Your task to perform on an android device: Go to ESPN.com Image 0: 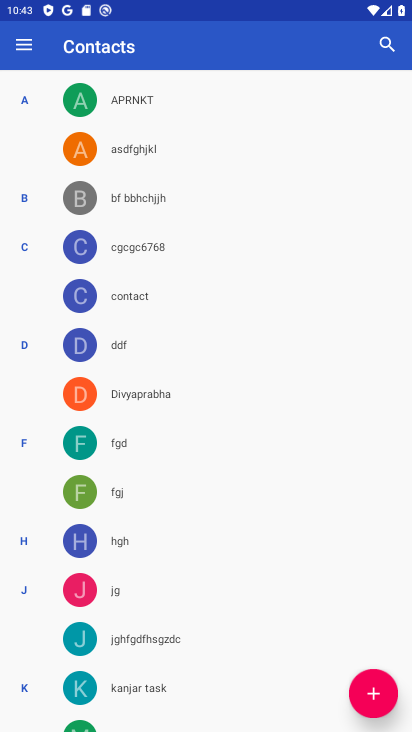
Step 0: press home button
Your task to perform on an android device: Go to ESPN.com Image 1: 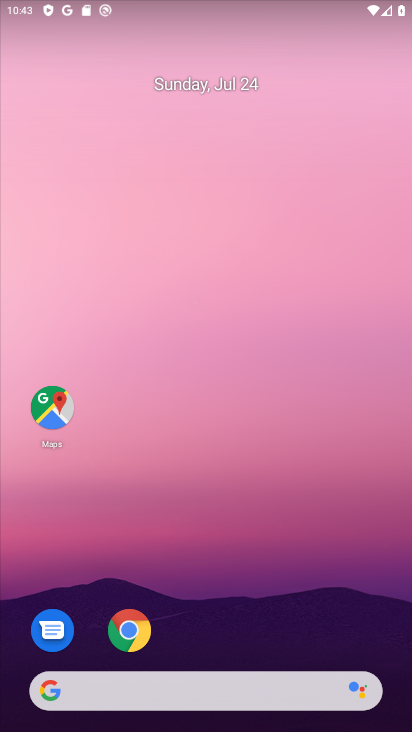
Step 1: press home button
Your task to perform on an android device: Go to ESPN.com Image 2: 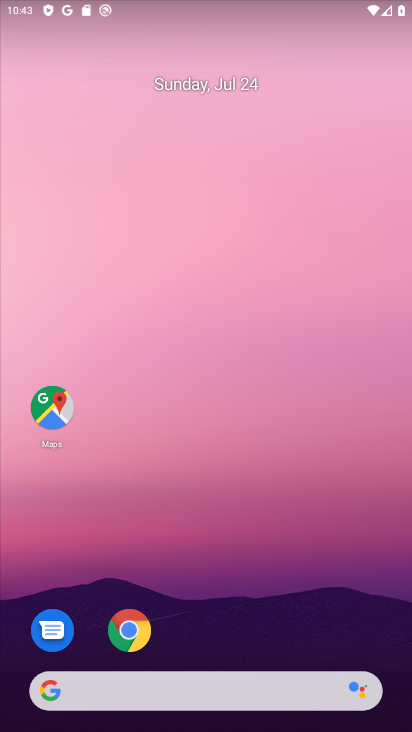
Step 2: click (45, 682)
Your task to perform on an android device: Go to ESPN.com Image 3: 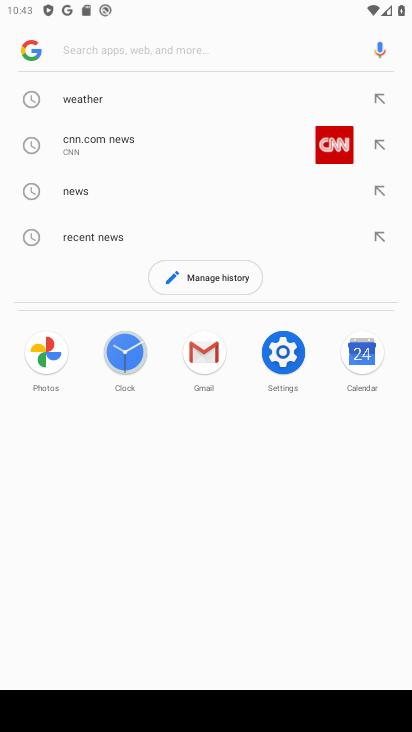
Step 3: type "ESPN.com"
Your task to perform on an android device: Go to ESPN.com Image 4: 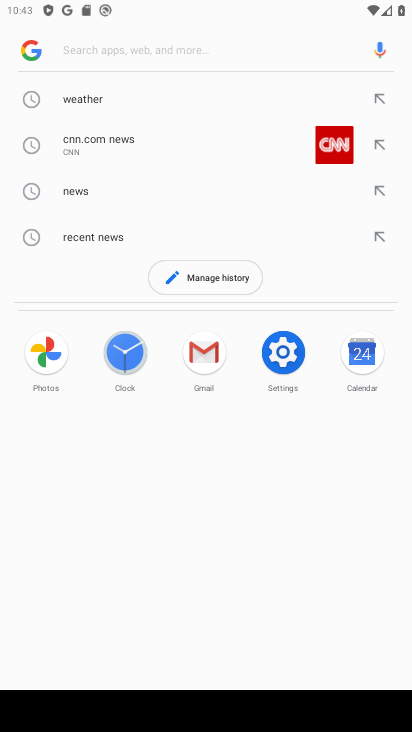
Step 4: click (97, 51)
Your task to perform on an android device: Go to ESPN.com Image 5: 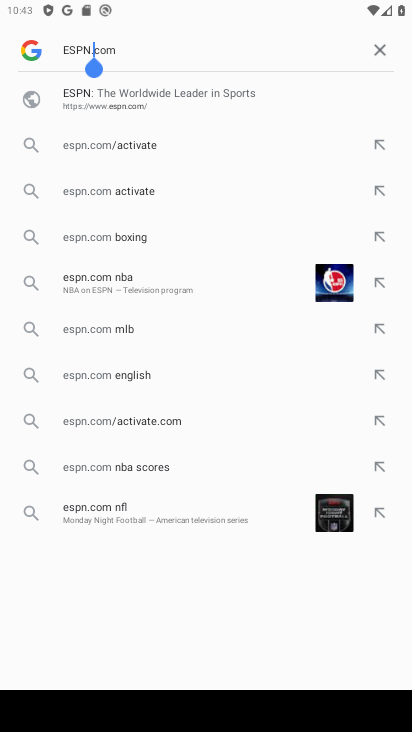
Step 5: click (85, 98)
Your task to perform on an android device: Go to ESPN.com Image 6: 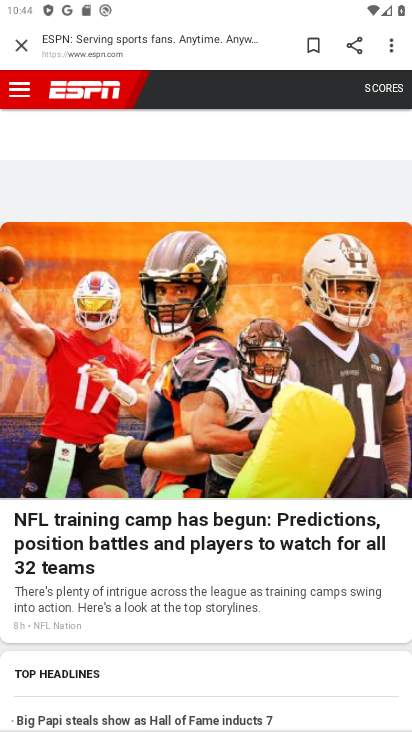
Step 6: task complete